Your task to perform on an android device: Open Google Chrome and open the bookmarks view Image 0: 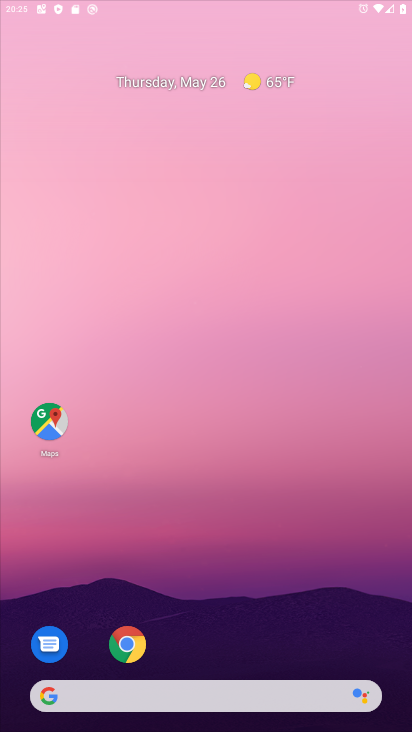
Step 0: click (352, 94)
Your task to perform on an android device: Open Google Chrome and open the bookmarks view Image 1: 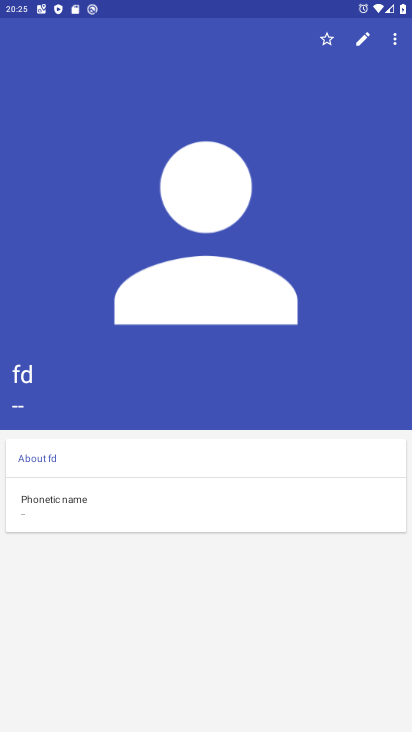
Step 1: press home button
Your task to perform on an android device: Open Google Chrome and open the bookmarks view Image 2: 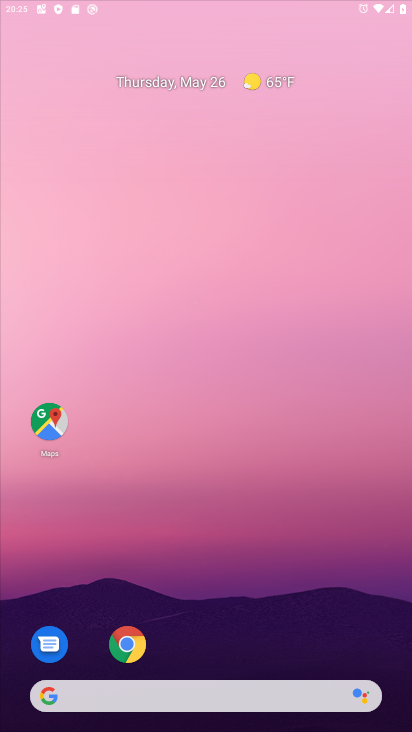
Step 2: drag from (292, 623) to (314, 0)
Your task to perform on an android device: Open Google Chrome and open the bookmarks view Image 3: 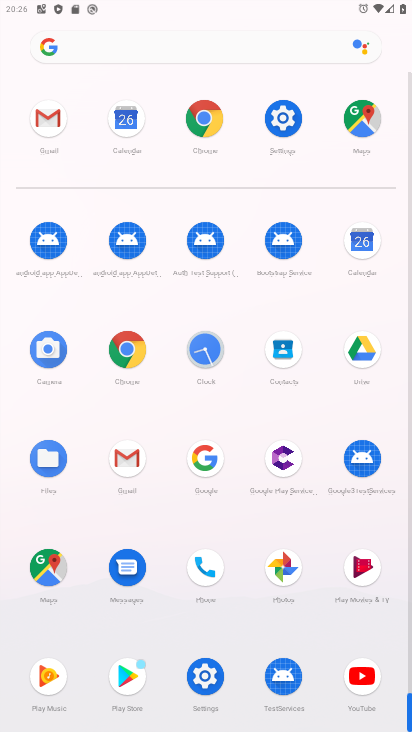
Step 3: click (196, 122)
Your task to perform on an android device: Open Google Chrome and open the bookmarks view Image 4: 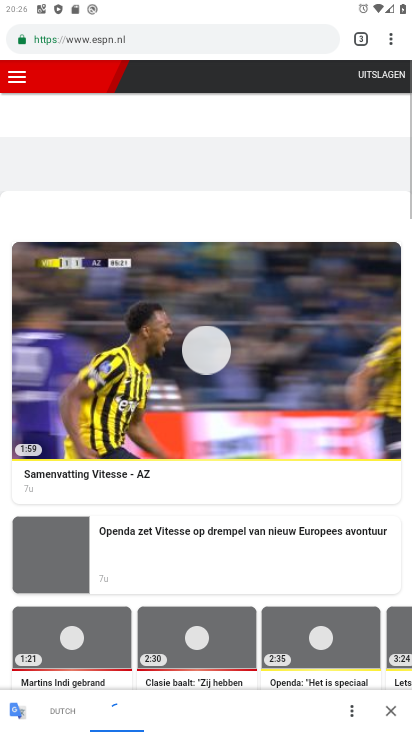
Step 4: task complete